Your task to perform on an android device: turn smart compose on in the gmail app Image 0: 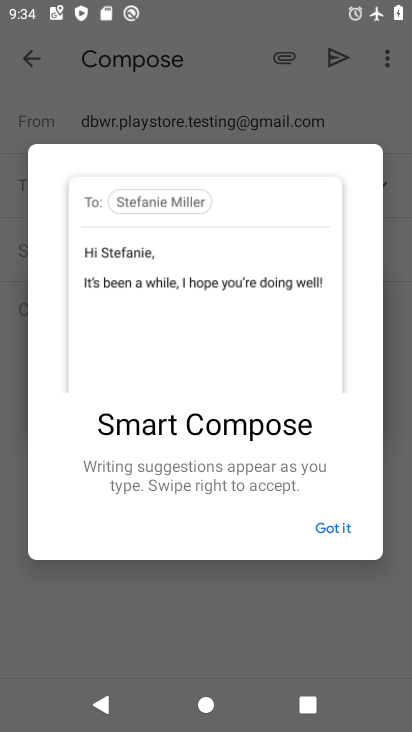
Step 0: press home button
Your task to perform on an android device: turn smart compose on in the gmail app Image 1: 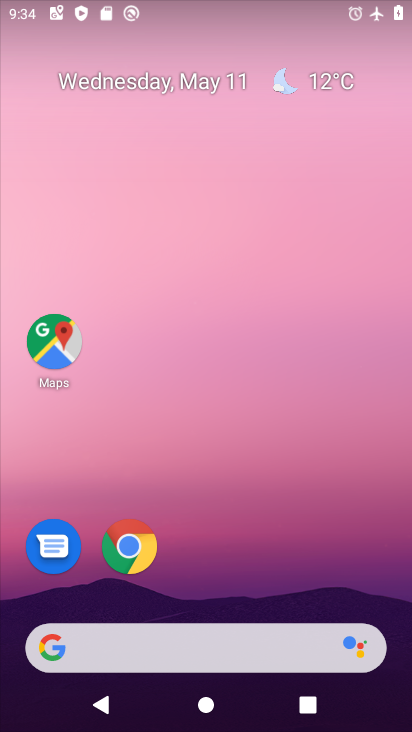
Step 1: drag from (378, 605) to (312, 77)
Your task to perform on an android device: turn smart compose on in the gmail app Image 2: 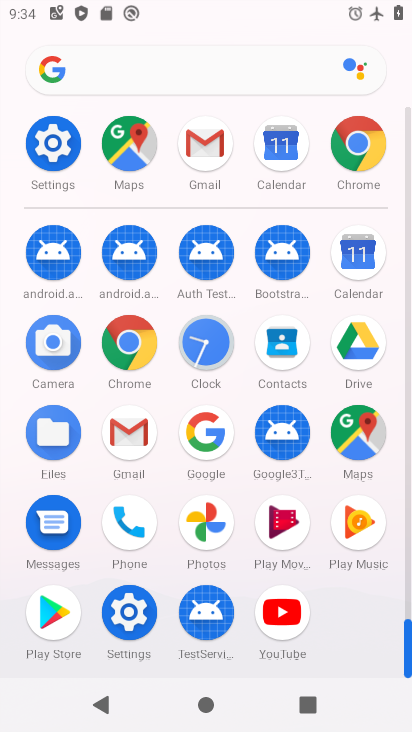
Step 2: click (349, 263)
Your task to perform on an android device: turn smart compose on in the gmail app Image 3: 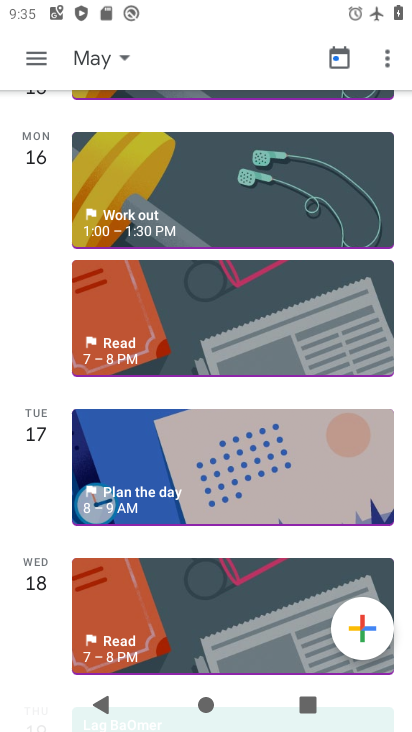
Step 3: press back button
Your task to perform on an android device: turn smart compose on in the gmail app Image 4: 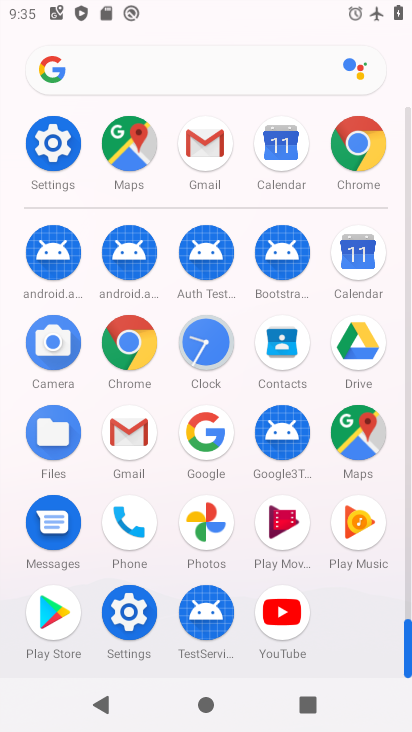
Step 4: click (127, 432)
Your task to perform on an android device: turn smart compose on in the gmail app Image 5: 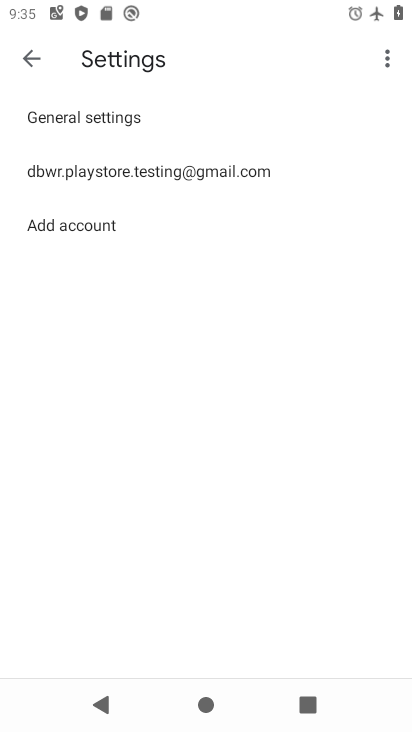
Step 5: click (123, 167)
Your task to perform on an android device: turn smart compose on in the gmail app Image 6: 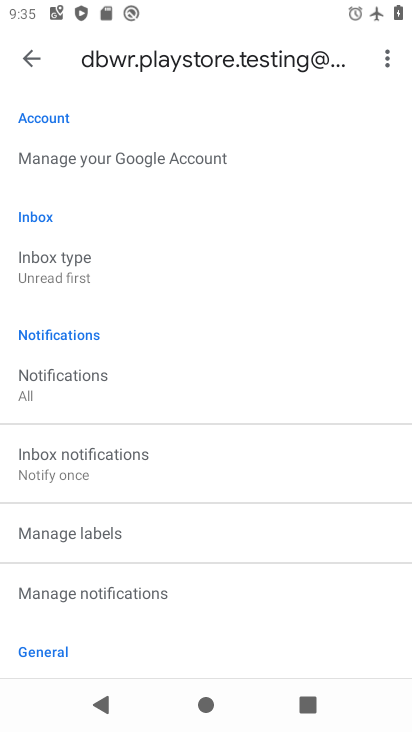
Step 6: task complete